Your task to perform on an android device: change text size in settings app Image 0: 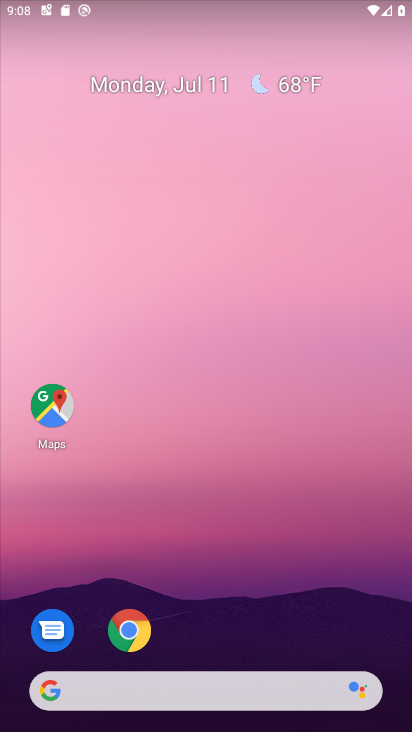
Step 0: click (375, 272)
Your task to perform on an android device: change text size in settings app Image 1: 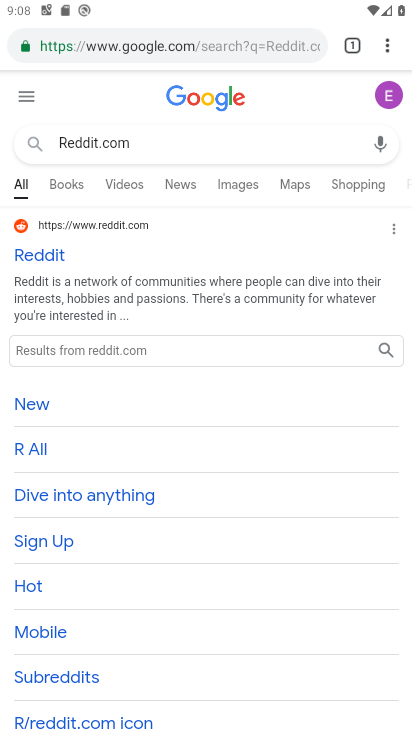
Step 1: click (62, 252)
Your task to perform on an android device: change text size in settings app Image 2: 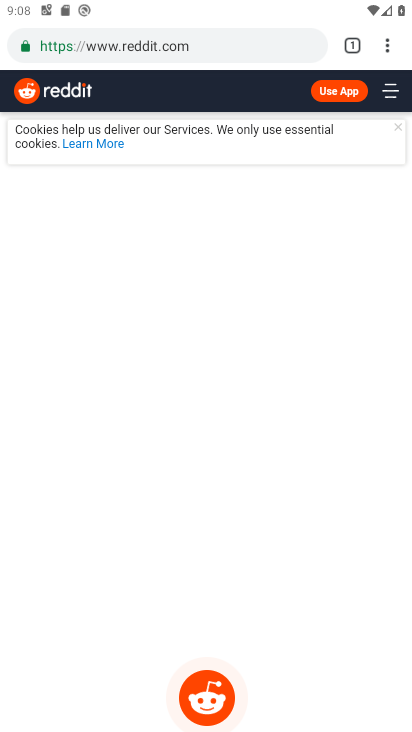
Step 2: press home button
Your task to perform on an android device: change text size in settings app Image 3: 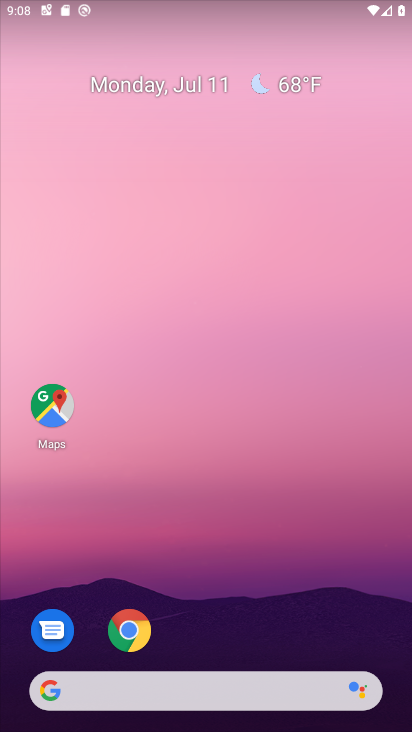
Step 3: drag from (184, 645) to (126, 13)
Your task to perform on an android device: change text size in settings app Image 4: 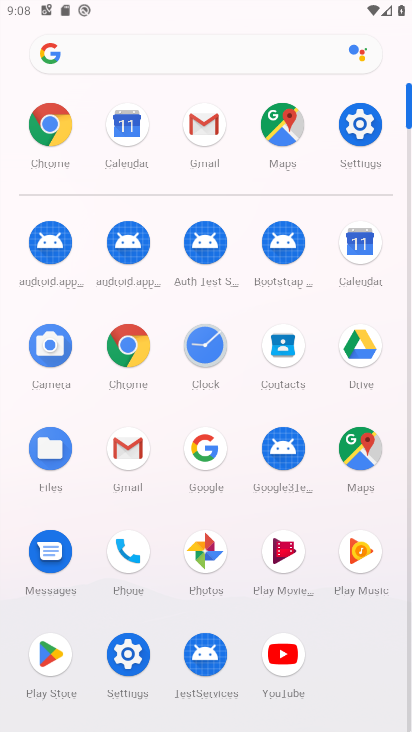
Step 4: click (114, 652)
Your task to perform on an android device: change text size in settings app Image 5: 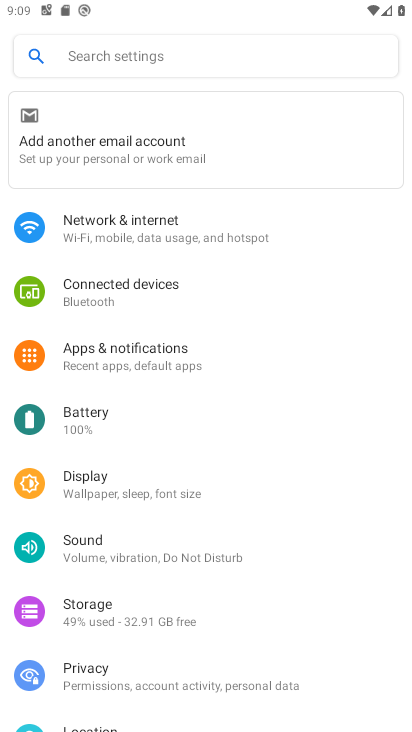
Step 5: click (108, 488)
Your task to perform on an android device: change text size in settings app Image 6: 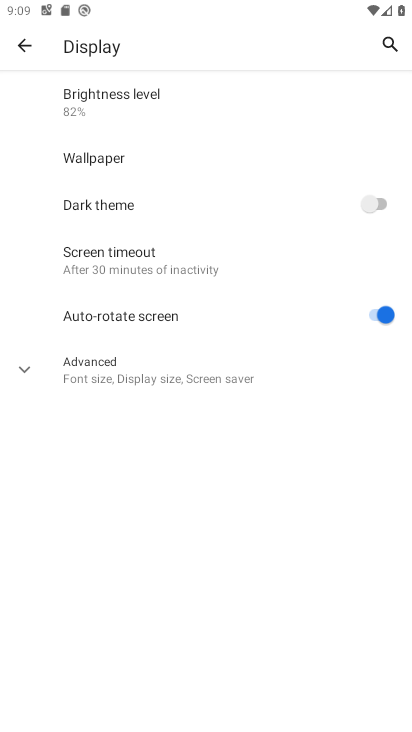
Step 6: click (104, 383)
Your task to perform on an android device: change text size in settings app Image 7: 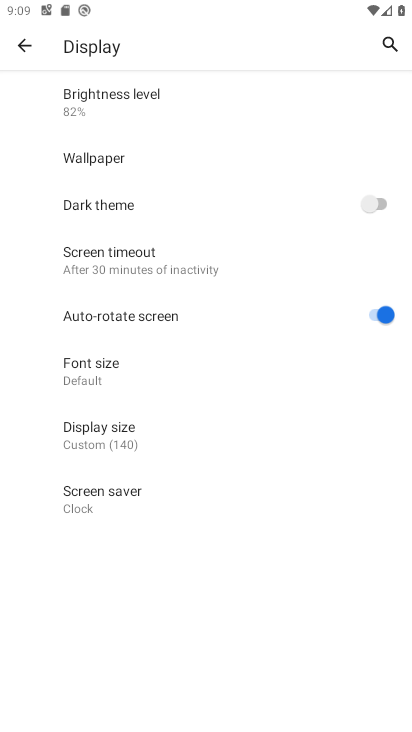
Step 7: click (104, 377)
Your task to perform on an android device: change text size in settings app Image 8: 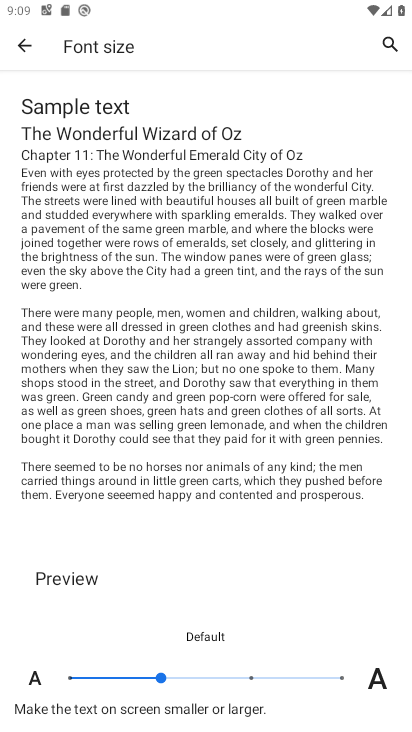
Step 8: click (253, 675)
Your task to perform on an android device: change text size in settings app Image 9: 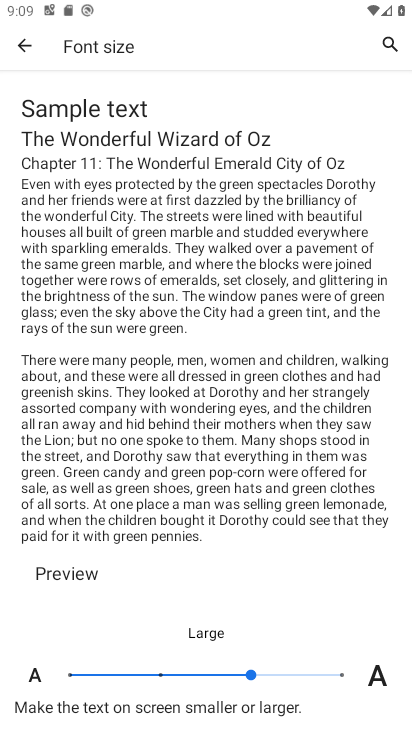
Step 9: task complete